Your task to perform on an android device: Open CNN.com Image 0: 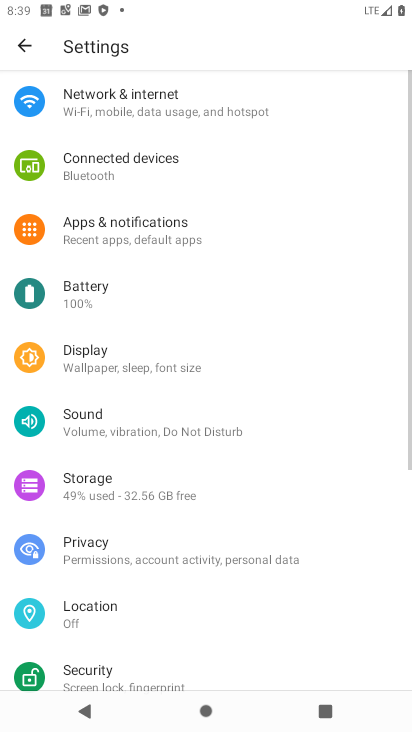
Step 0: press home button
Your task to perform on an android device: Open CNN.com Image 1: 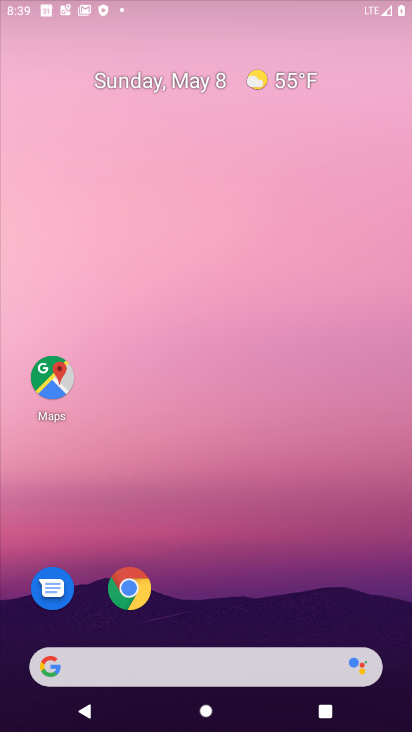
Step 1: drag from (363, 591) to (241, 62)
Your task to perform on an android device: Open CNN.com Image 2: 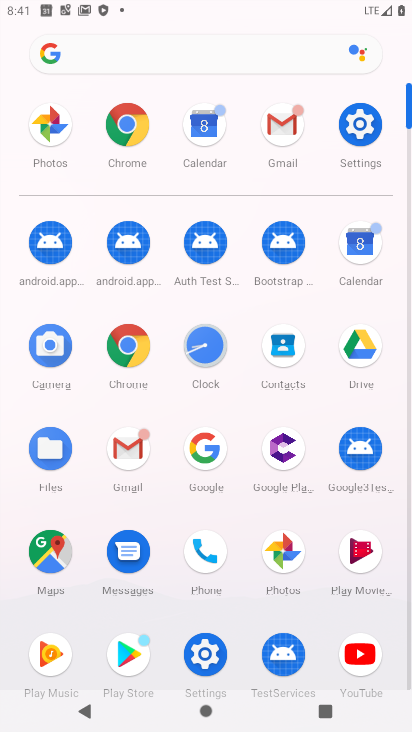
Step 2: click (126, 113)
Your task to perform on an android device: Open CNN.com Image 3: 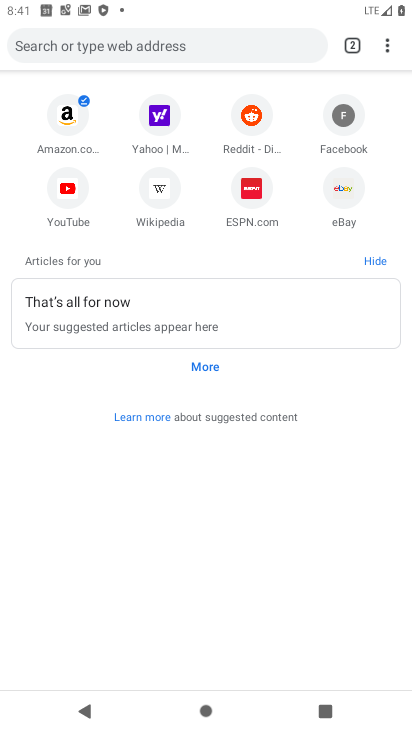
Step 3: click (170, 43)
Your task to perform on an android device: Open CNN.com Image 4: 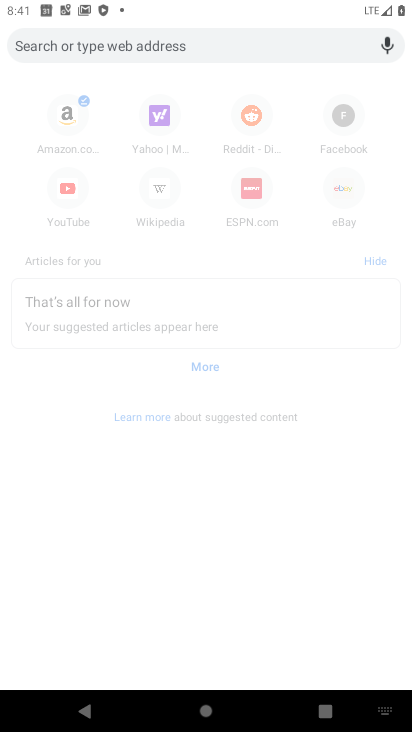
Step 4: type "cnn.com"
Your task to perform on an android device: Open CNN.com Image 5: 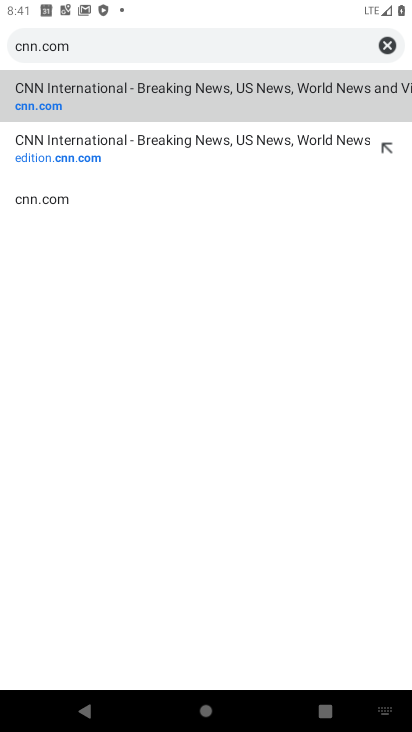
Step 5: click (131, 100)
Your task to perform on an android device: Open CNN.com Image 6: 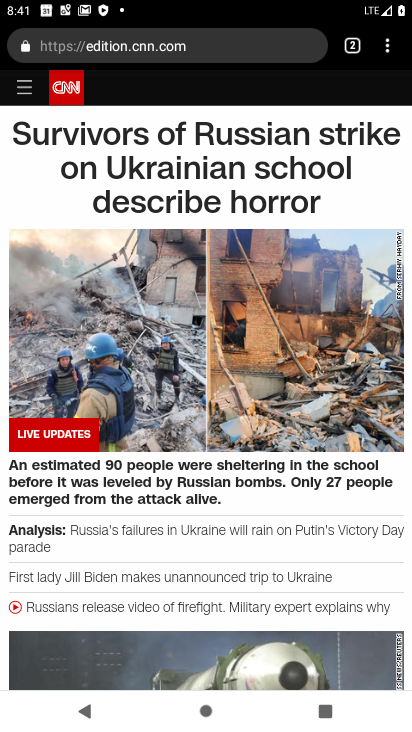
Step 6: task complete